Your task to perform on an android device: toggle wifi Image 0: 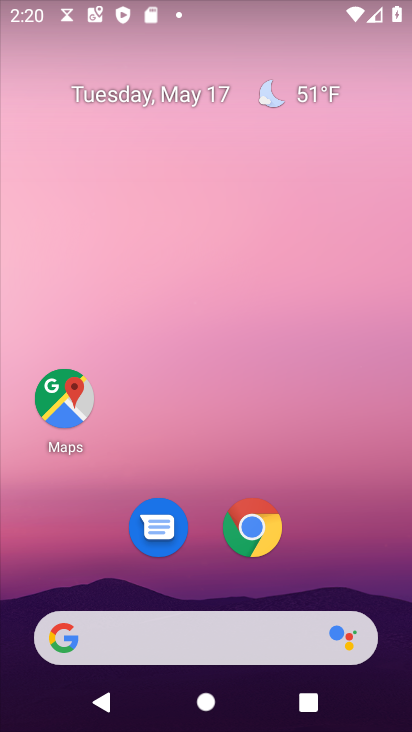
Step 0: drag from (330, 560) to (232, 231)
Your task to perform on an android device: toggle wifi Image 1: 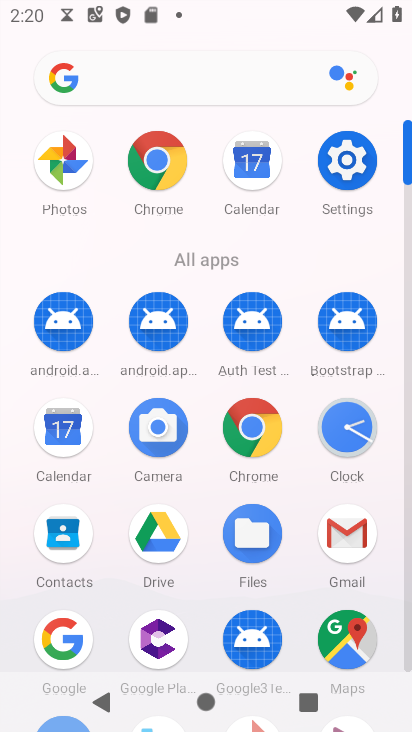
Step 1: click (346, 160)
Your task to perform on an android device: toggle wifi Image 2: 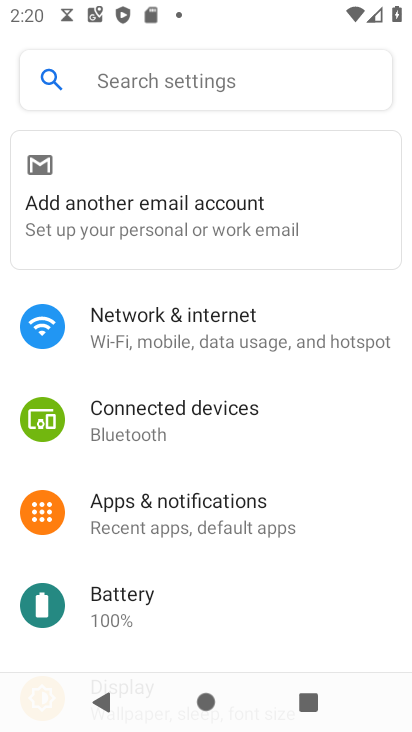
Step 2: click (202, 321)
Your task to perform on an android device: toggle wifi Image 3: 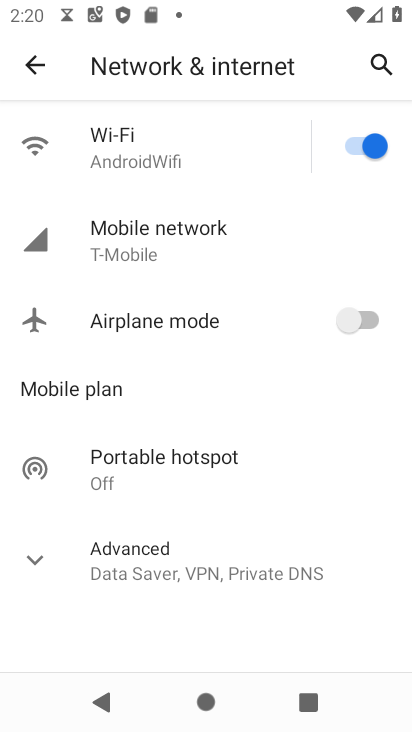
Step 3: click (358, 140)
Your task to perform on an android device: toggle wifi Image 4: 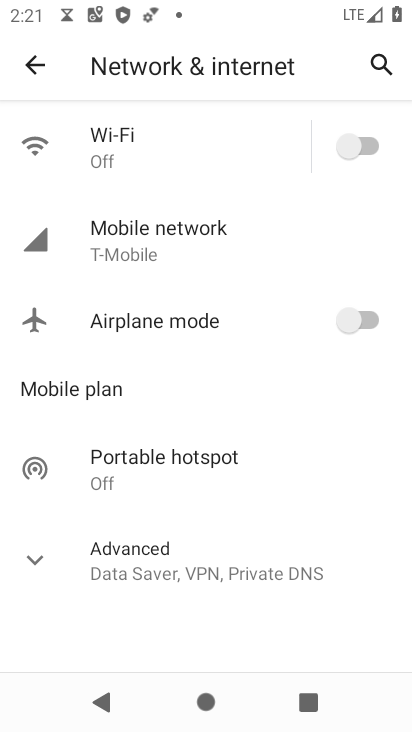
Step 4: task complete